Your task to perform on an android device: Open Android settings Image 0: 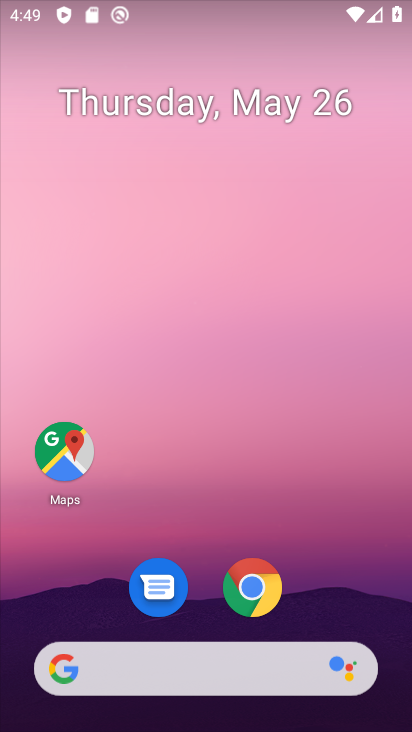
Step 0: drag from (312, 592) to (268, 13)
Your task to perform on an android device: Open Android settings Image 1: 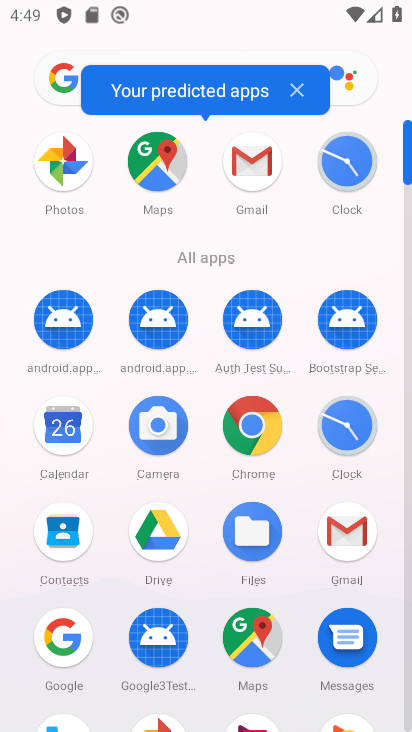
Step 1: drag from (204, 477) to (206, 209)
Your task to perform on an android device: Open Android settings Image 2: 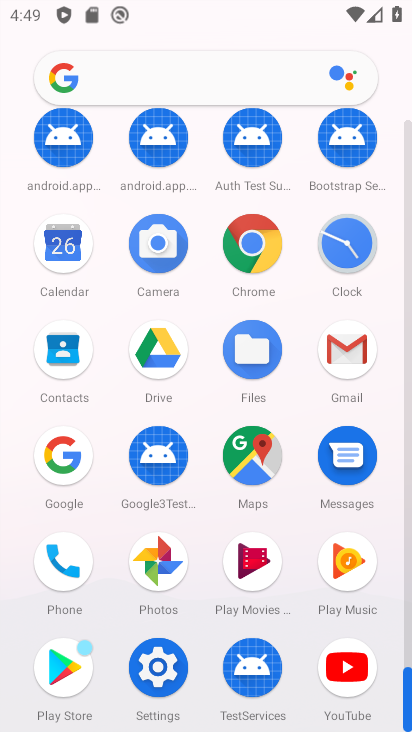
Step 2: click (160, 664)
Your task to perform on an android device: Open Android settings Image 3: 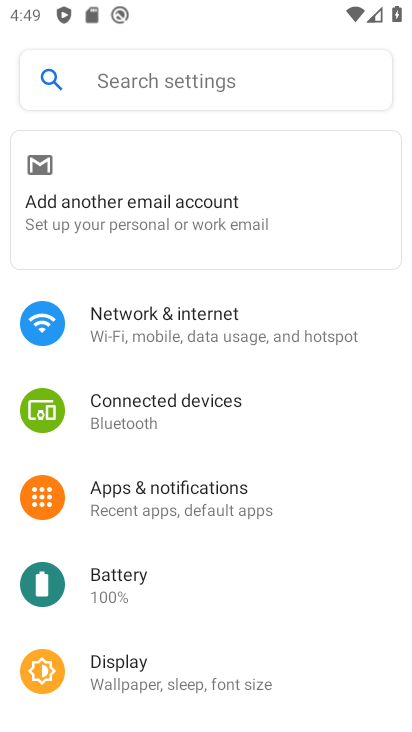
Step 3: task complete